Your task to perform on an android device: Find coffee shops on Maps Image 0: 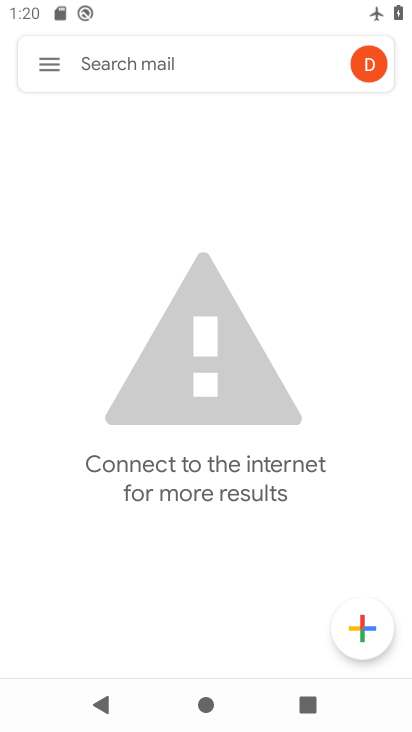
Step 0: press home button
Your task to perform on an android device: Find coffee shops on Maps Image 1: 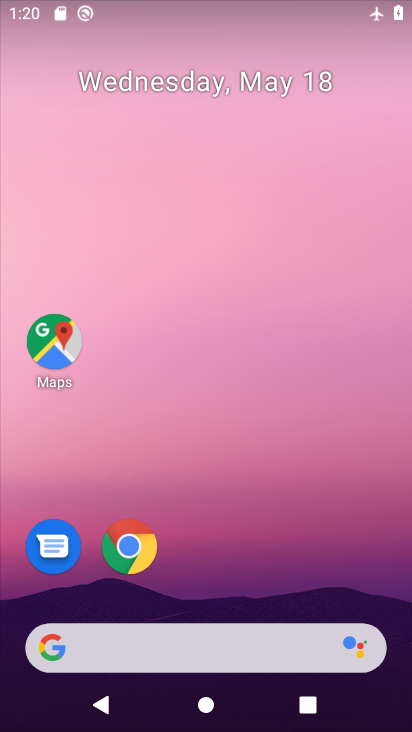
Step 1: click (45, 342)
Your task to perform on an android device: Find coffee shops on Maps Image 2: 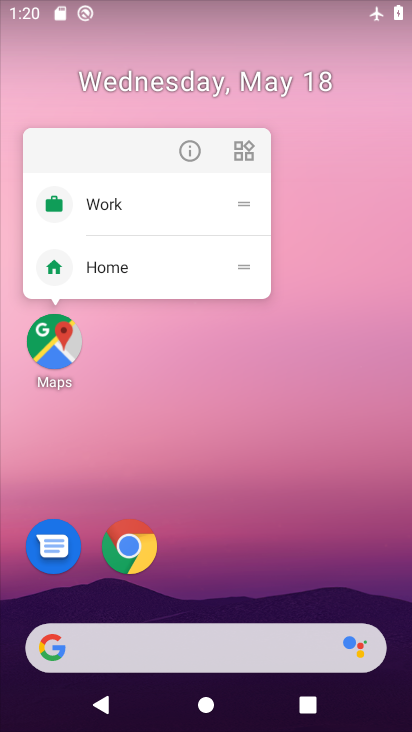
Step 2: click (44, 344)
Your task to perform on an android device: Find coffee shops on Maps Image 3: 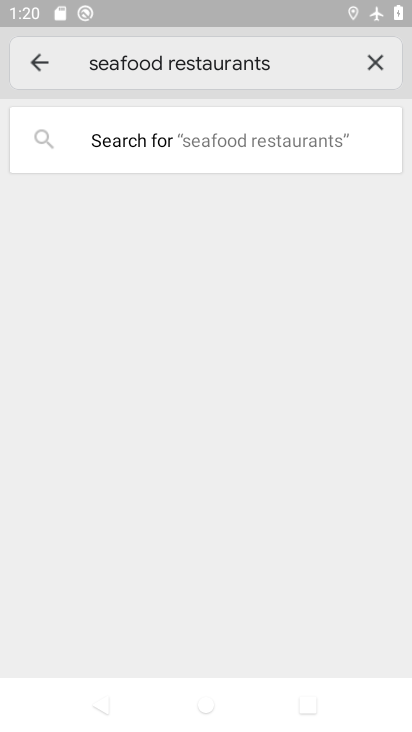
Step 3: press home button
Your task to perform on an android device: Find coffee shops on Maps Image 4: 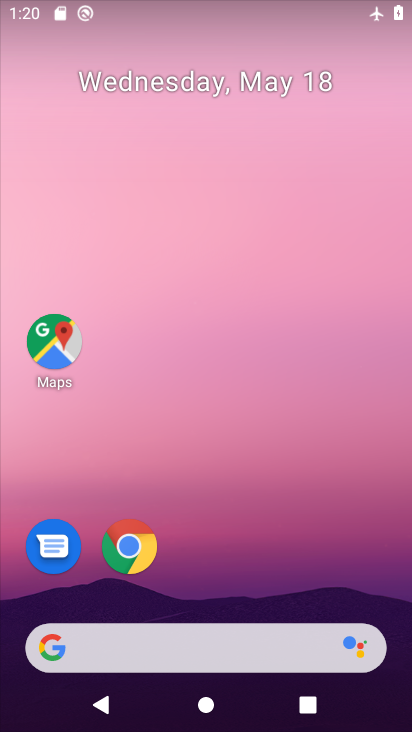
Step 4: click (41, 324)
Your task to perform on an android device: Find coffee shops on Maps Image 5: 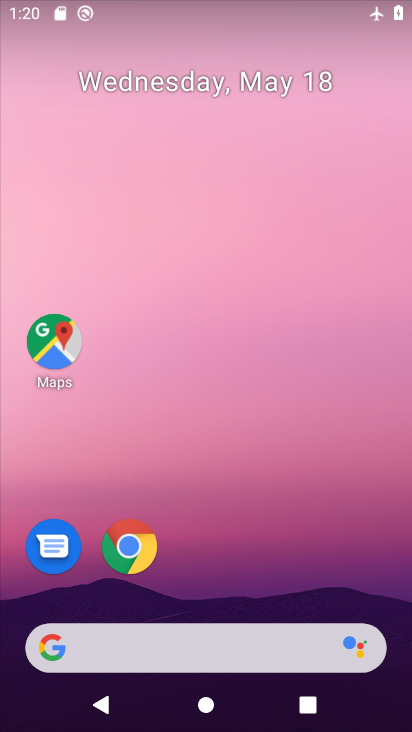
Step 5: click (53, 341)
Your task to perform on an android device: Find coffee shops on Maps Image 6: 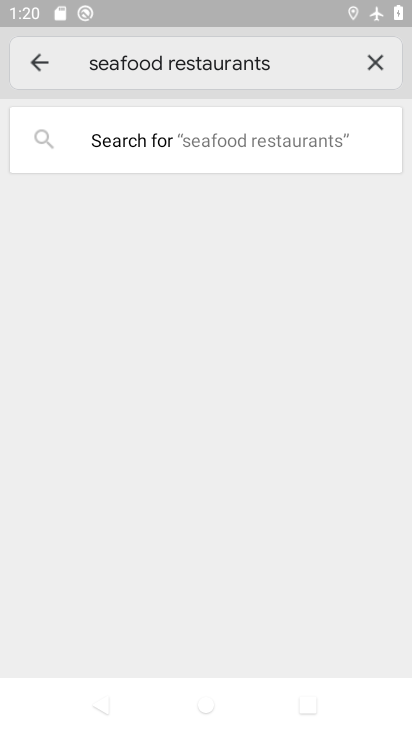
Step 6: click (365, 63)
Your task to perform on an android device: Find coffee shops on Maps Image 7: 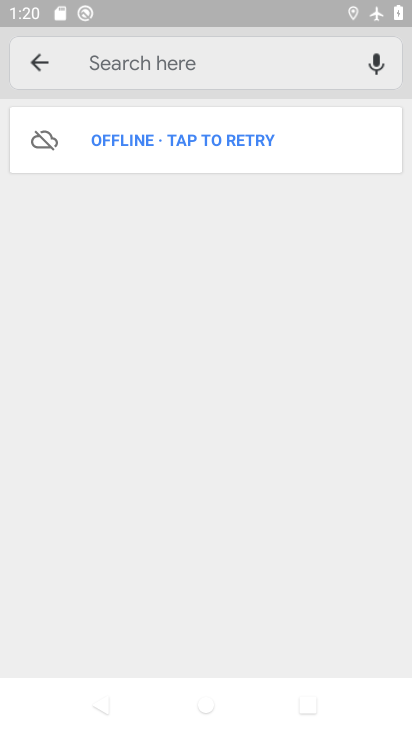
Step 7: type "coffee shops"
Your task to perform on an android device: Find coffee shops on Maps Image 8: 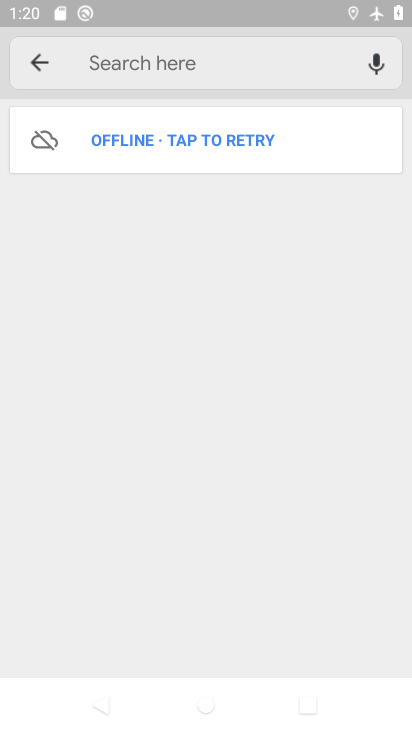
Step 8: task complete